Your task to perform on an android device: Open ESPN.com Image 0: 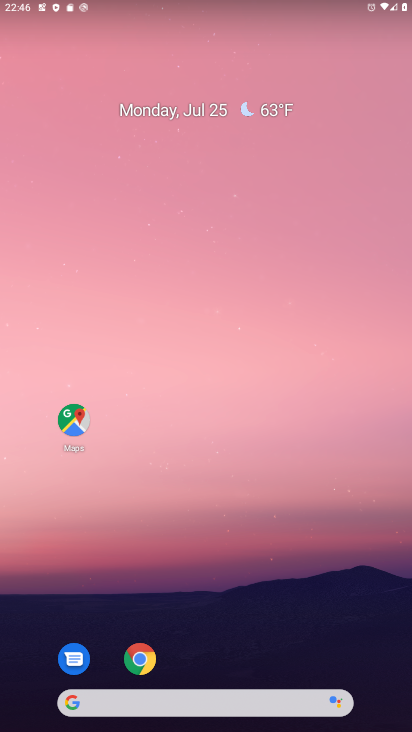
Step 0: click (138, 655)
Your task to perform on an android device: Open ESPN.com Image 1: 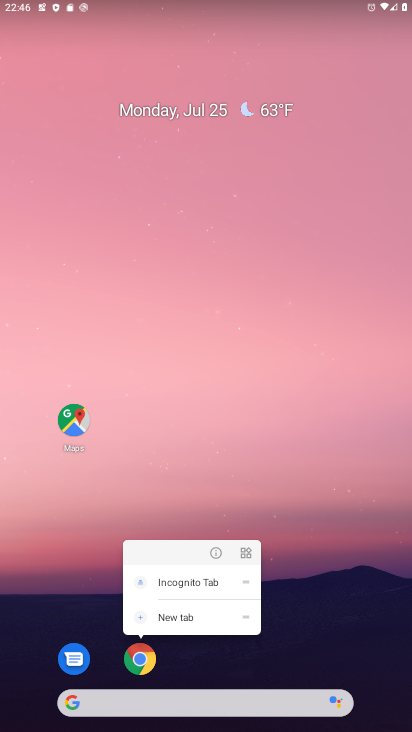
Step 1: click (137, 657)
Your task to perform on an android device: Open ESPN.com Image 2: 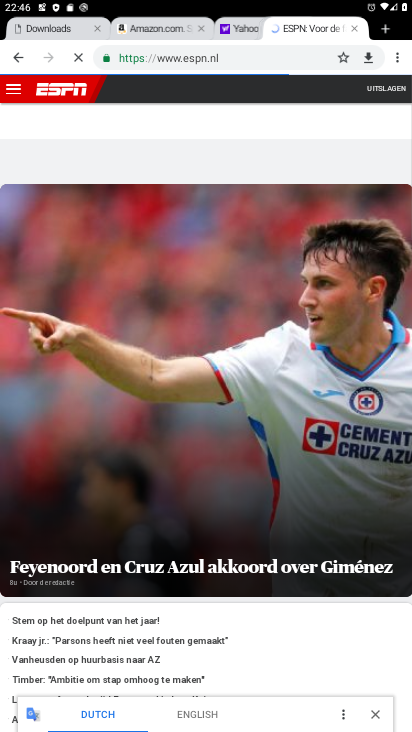
Step 2: task complete